Your task to perform on an android device: turn notification dots on Image 0: 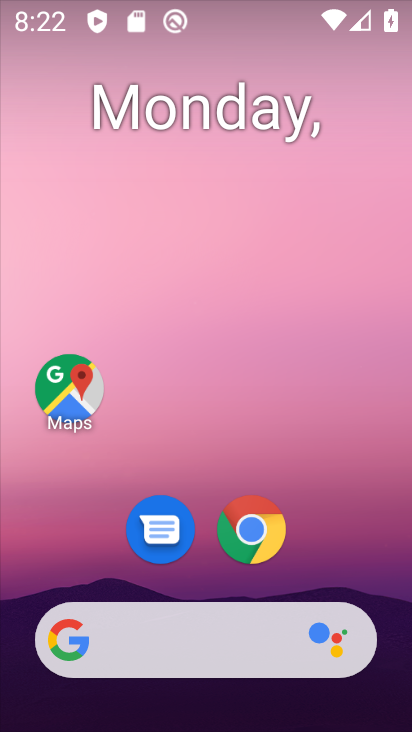
Step 0: drag from (28, 644) to (238, 166)
Your task to perform on an android device: turn notification dots on Image 1: 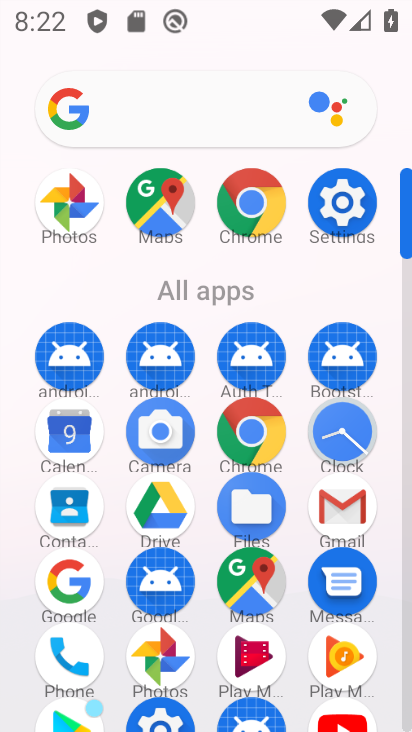
Step 1: click (332, 226)
Your task to perform on an android device: turn notification dots on Image 2: 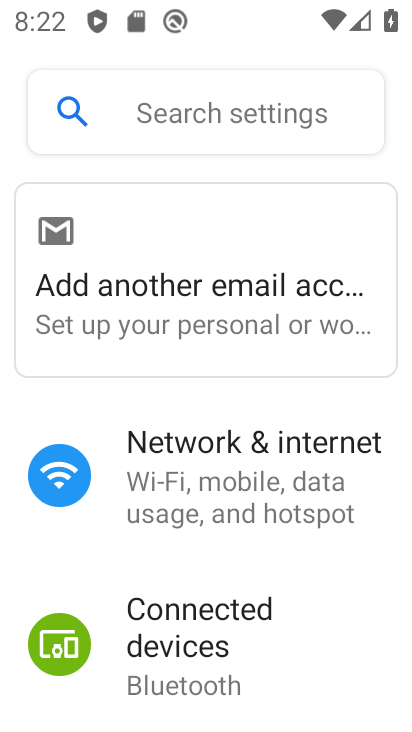
Step 2: drag from (76, 665) to (284, 213)
Your task to perform on an android device: turn notification dots on Image 3: 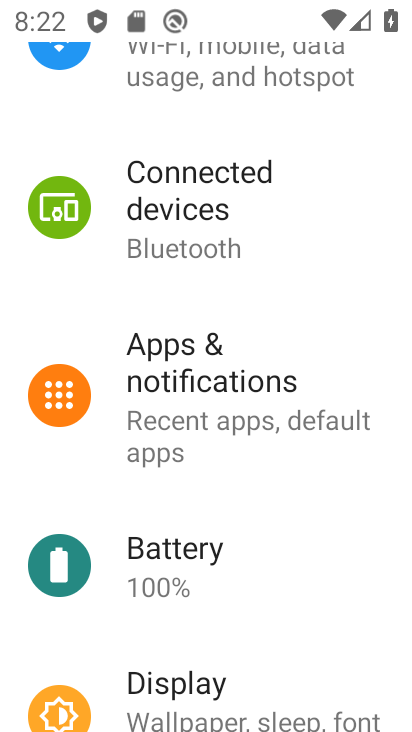
Step 3: click (220, 371)
Your task to perform on an android device: turn notification dots on Image 4: 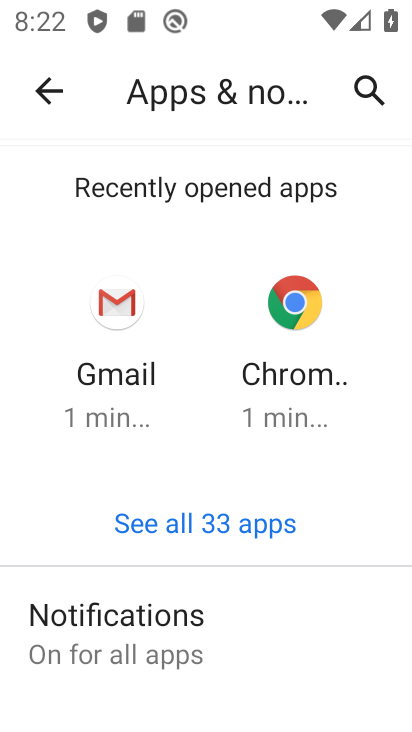
Step 4: click (108, 640)
Your task to perform on an android device: turn notification dots on Image 5: 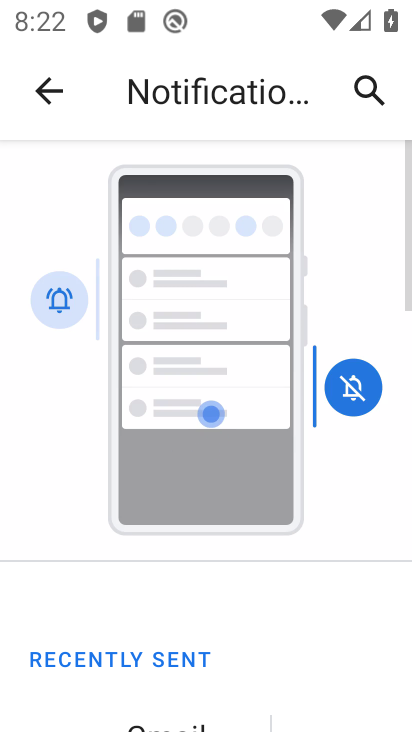
Step 5: drag from (112, 662) to (404, 148)
Your task to perform on an android device: turn notification dots on Image 6: 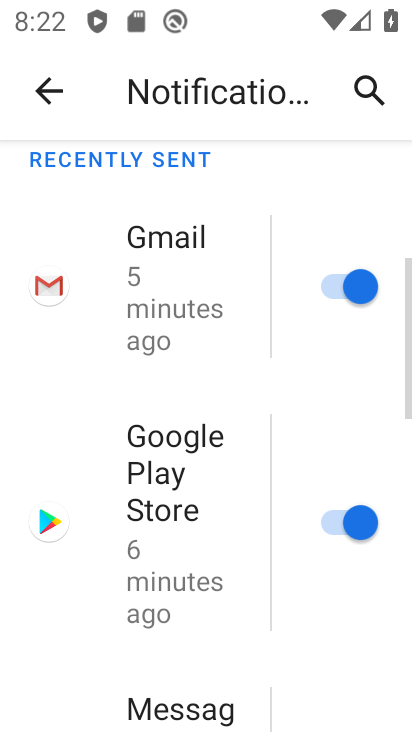
Step 6: drag from (72, 636) to (280, 222)
Your task to perform on an android device: turn notification dots on Image 7: 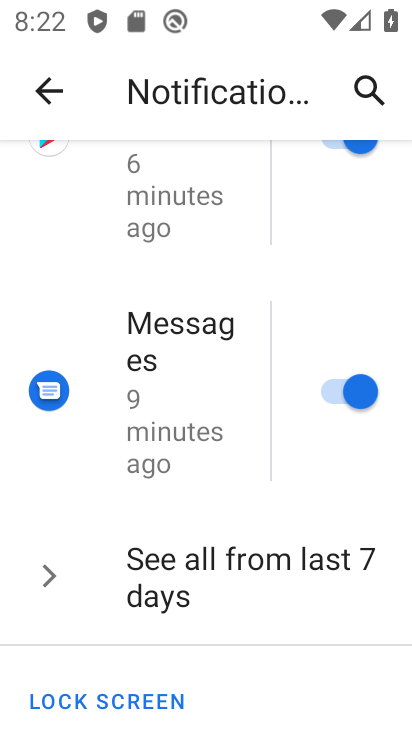
Step 7: drag from (72, 637) to (281, 150)
Your task to perform on an android device: turn notification dots on Image 8: 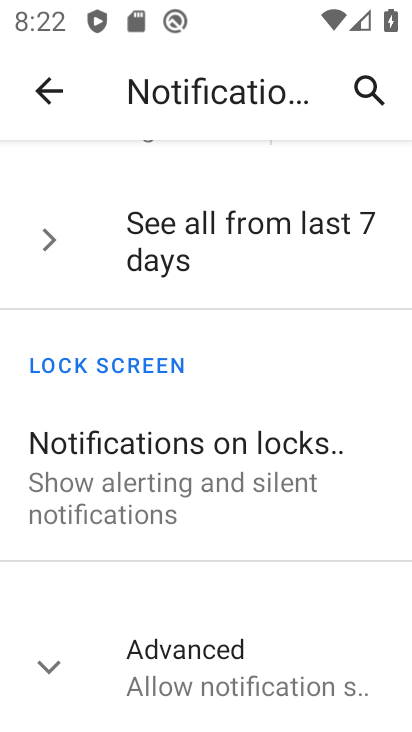
Step 8: click (128, 655)
Your task to perform on an android device: turn notification dots on Image 9: 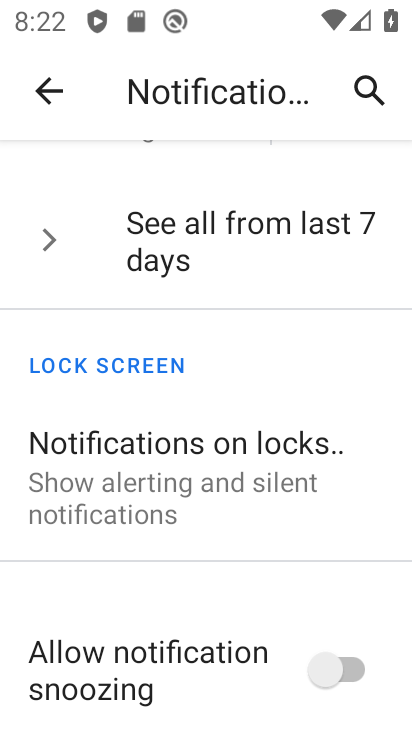
Step 9: drag from (207, 677) to (276, 321)
Your task to perform on an android device: turn notification dots on Image 10: 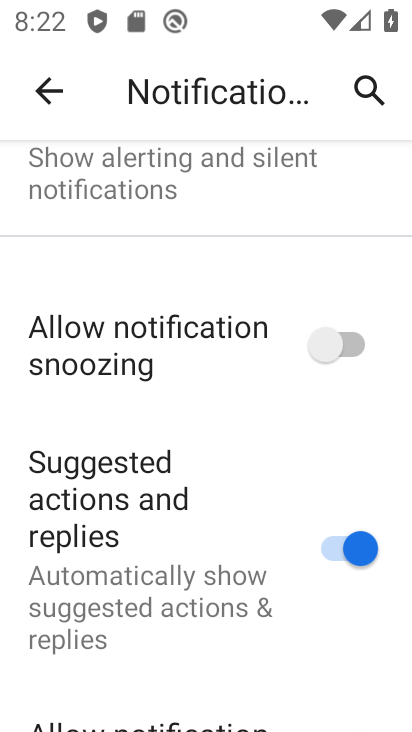
Step 10: drag from (137, 688) to (202, 354)
Your task to perform on an android device: turn notification dots on Image 11: 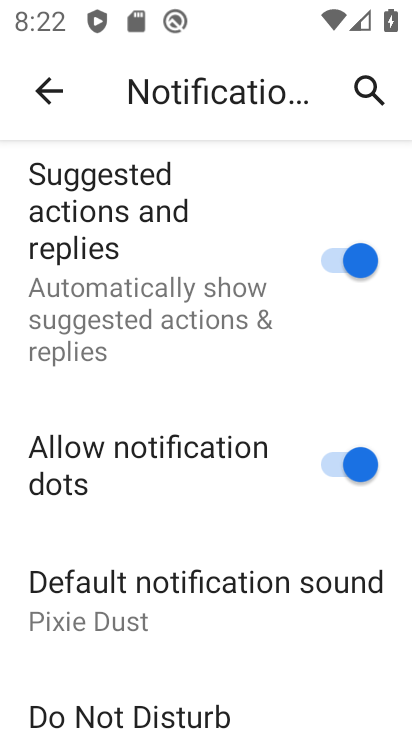
Step 11: click (366, 476)
Your task to perform on an android device: turn notification dots on Image 12: 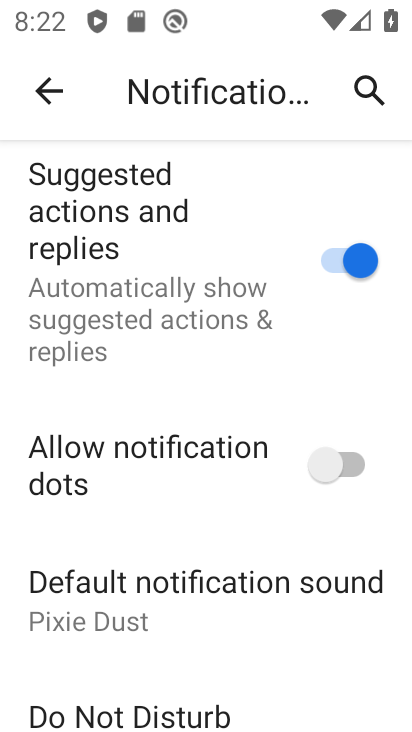
Step 12: task complete